Your task to perform on an android device: turn off sleep mode Image 0: 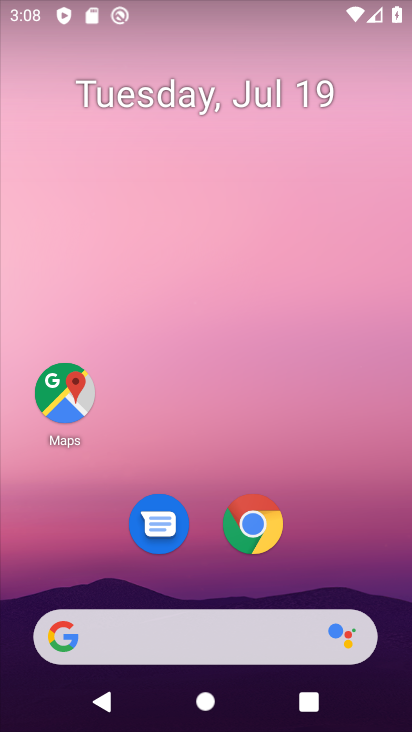
Step 0: drag from (316, 561) to (321, 31)
Your task to perform on an android device: turn off sleep mode Image 1: 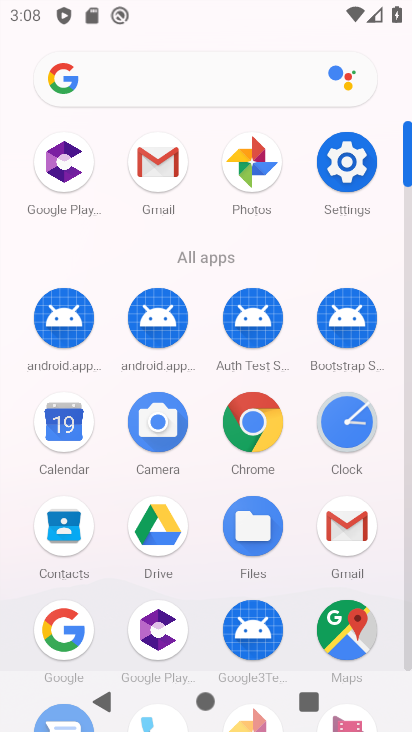
Step 1: click (349, 148)
Your task to perform on an android device: turn off sleep mode Image 2: 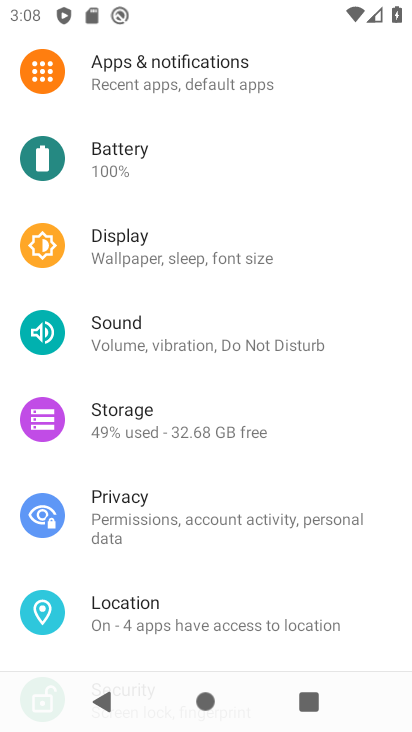
Step 2: click (229, 248)
Your task to perform on an android device: turn off sleep mode Image 3: 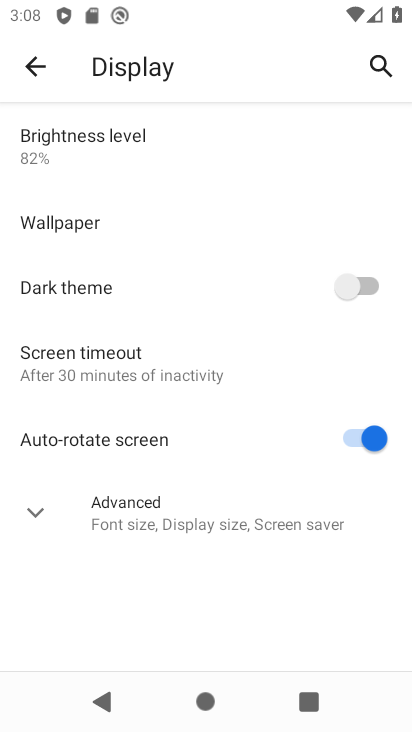
Step 3: click (30, 506)
Your task to perform on an android device: turn off sleep mode Image 4: 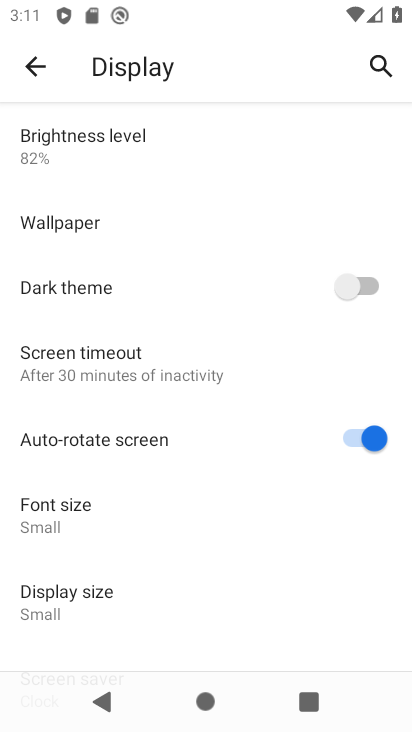
Step 4: task complete